Your task to perform on an android device: change notification settings in the gmail app Image 0: 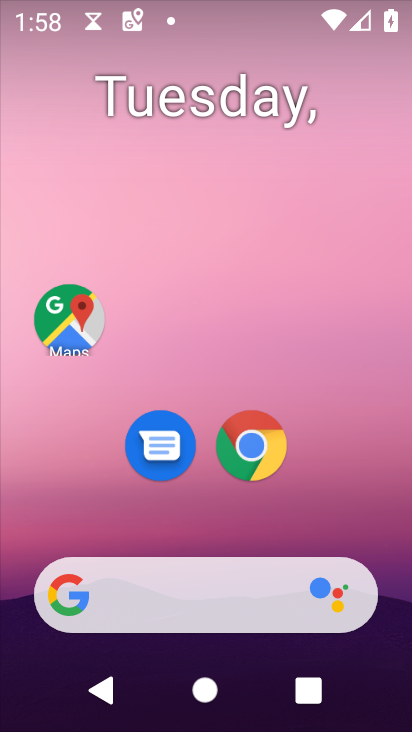
Step 0: drag from (339, 478) to (218, 2)
Your task to perform on an android device: change notification settings in the gmail app Image 1: 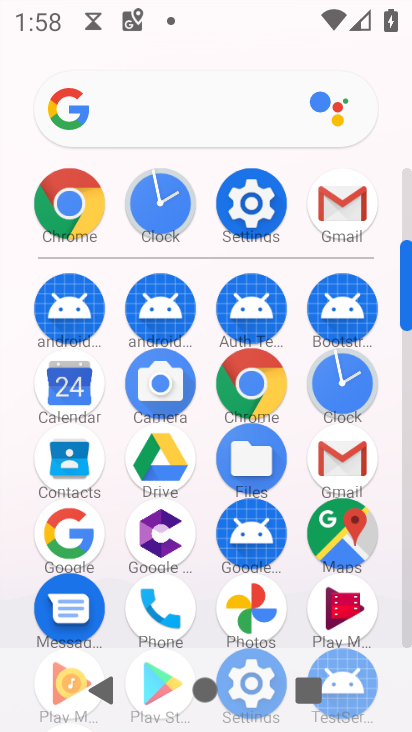
Step 1: click (352, 199)
Your task to perform on an android device: change notification settings in the gmail app Image 2: 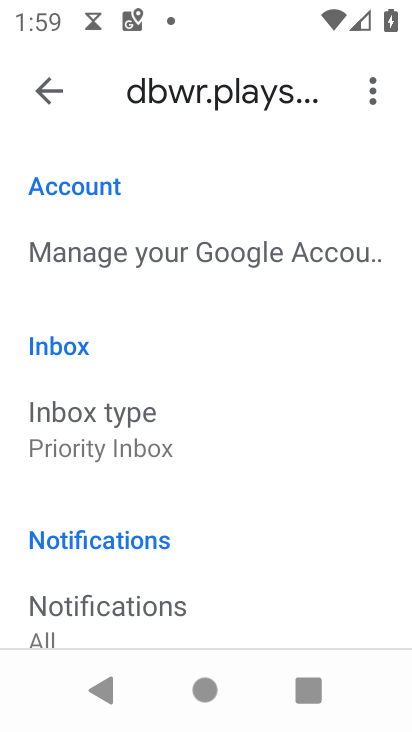
Step 2: click (148, 602)
Your task to perform on an android device: change notification settings in the gmail app Image 3: 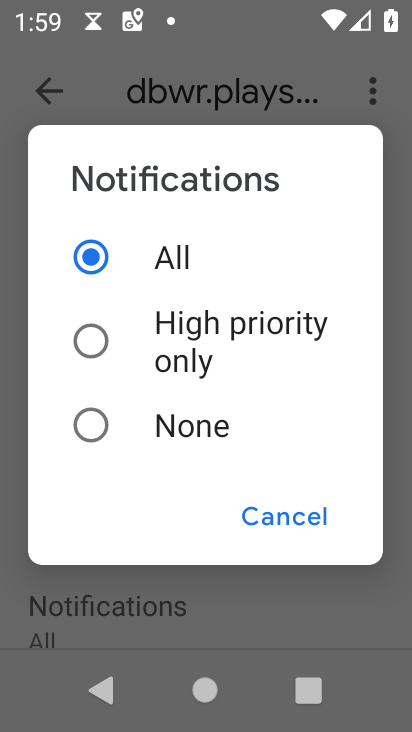
Step 3: click (143, 357)
Your task to perform on an android device: change notification settings in the gmail app Image 4: 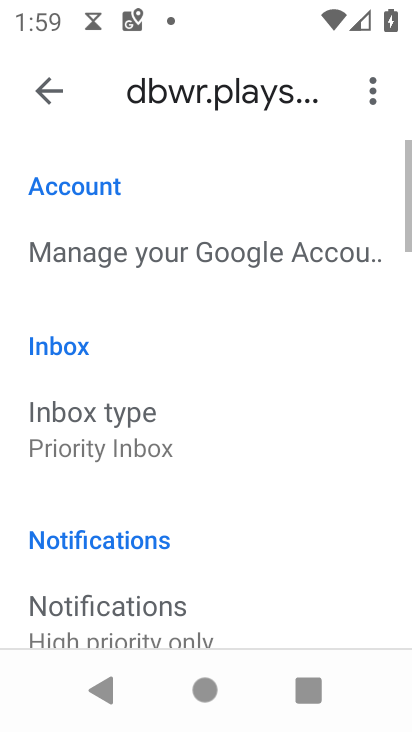
Step 4: task complete